Your task to perform on an android device: delete browsing data in the chrome app Image 0: 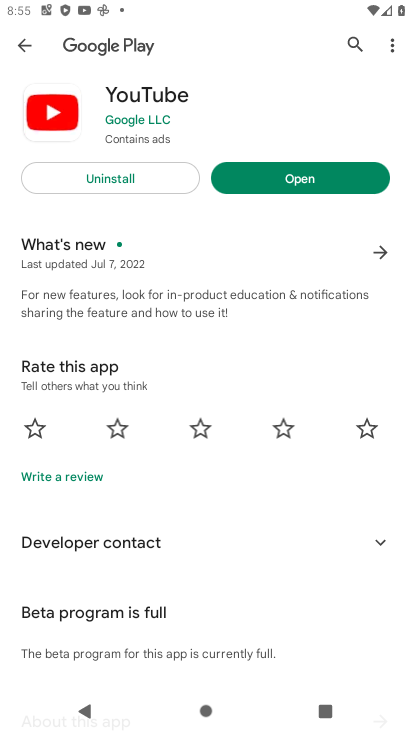
Step 0: press home button
Your task to perform on an android device: delete browsing data in the chrome app Image 1: 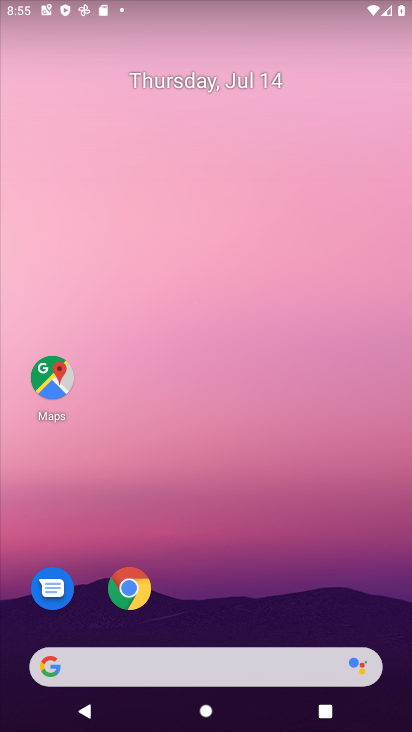
Step 1: click (132, 589)
Your task to perform on an android device: delete browsing data in the chrome app Image 2: 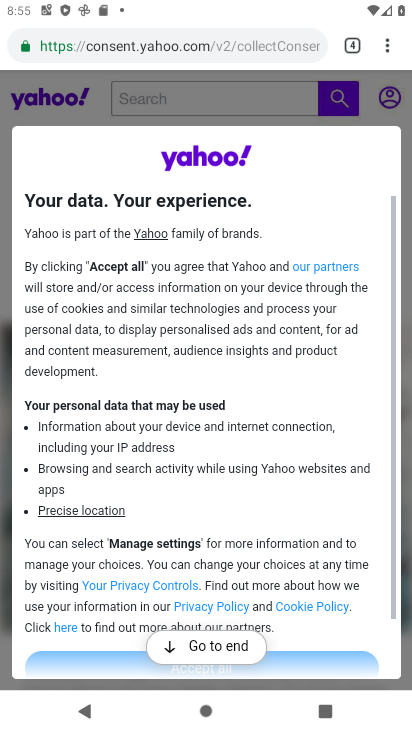
Step 2: click (383, 48)
Your task to perform on an android device: delete browsing data in the chrome app Image 3: 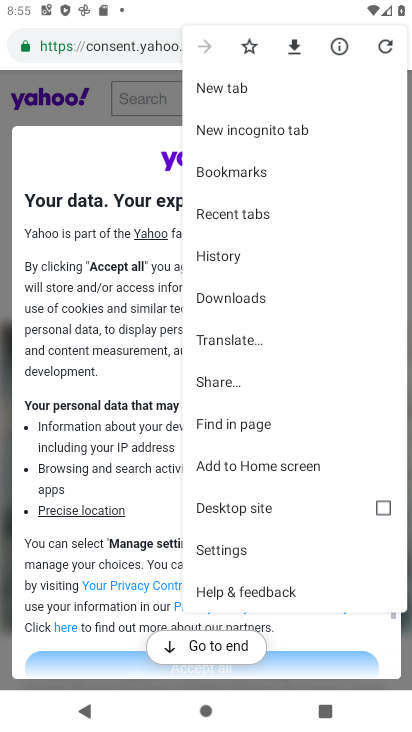
Step 3: click (234, 552)
Your task to perform on an android device: delete browsing data in the chrome app Image 4: 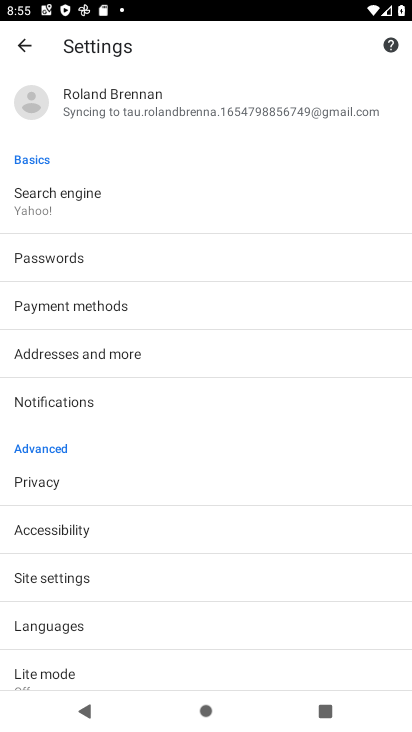
Step 4: click (72, 482)
Your task to perform on an android device: delete browsing data in the chrome app Image 5: 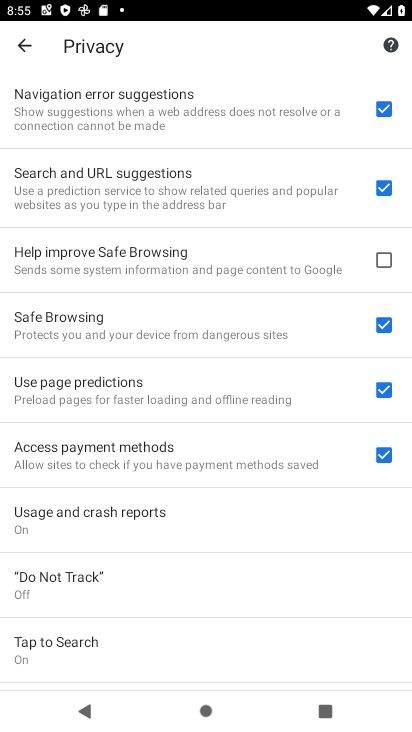
Step 5: drag from (254, 605) to (240, 95)
Your task to perform on an android device: delete browsing data in the chrome app Image 6: 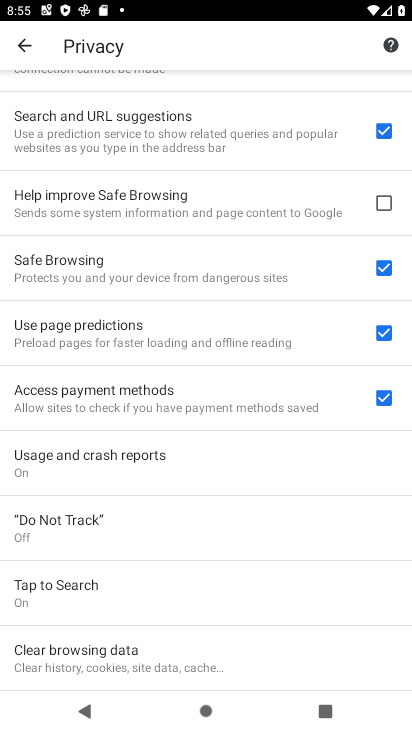
Step 6: click (80, 658)
Your task to perform on an android device: delete browsing data in the chrome app Image 7: 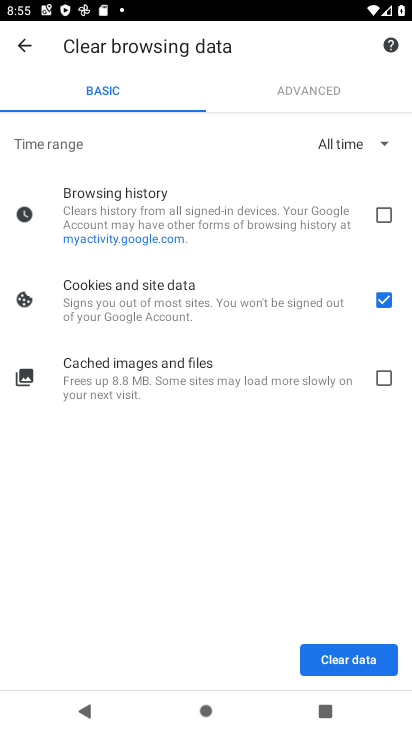
Step 7: click (385, 205)
Your task to perform on an android device: delete browsing data in the chrome app Image 8: 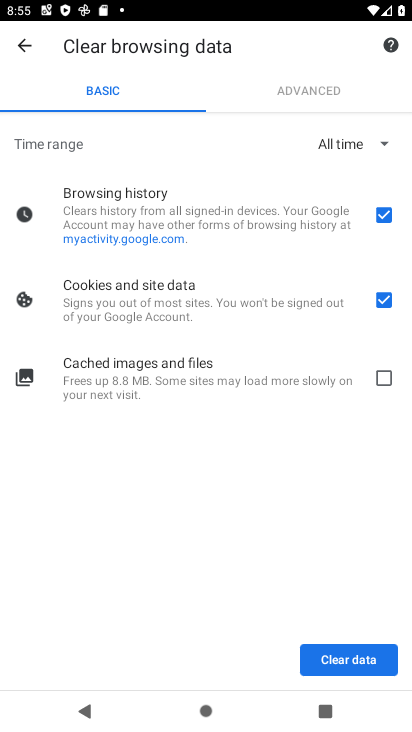
Step 8: click (388, 380)
Your task to perform on an android device: delete browsing data in the chrome app Image 9: 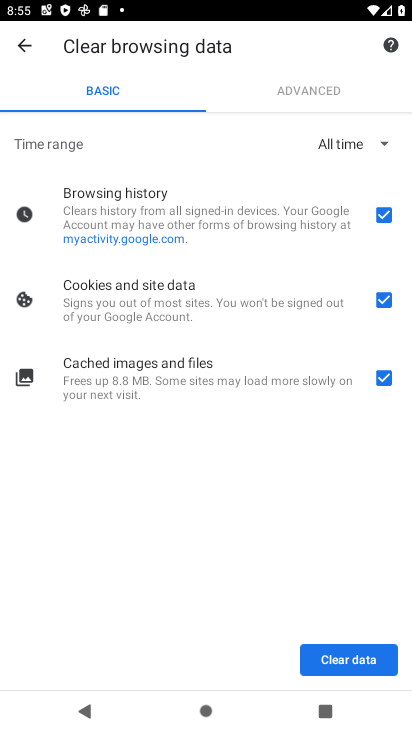
Step 9: click (345, 661)
Your task to perform on an android device: delete browsing data in the chrome app Image 10: 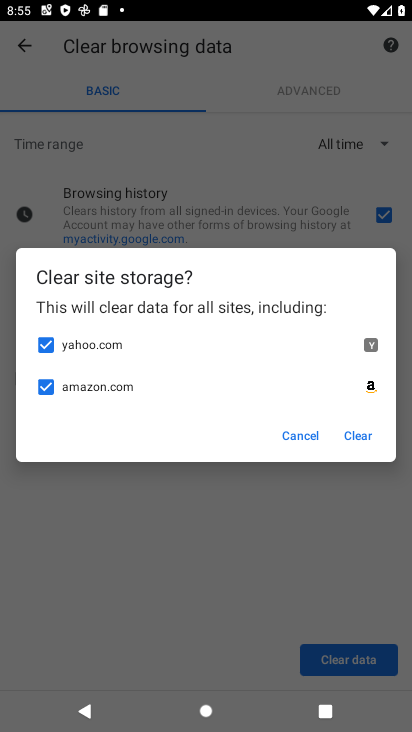
Step 10: click (355, 434)
Your task to perform on an android device: delete browsing data in the chrome app Image 11: 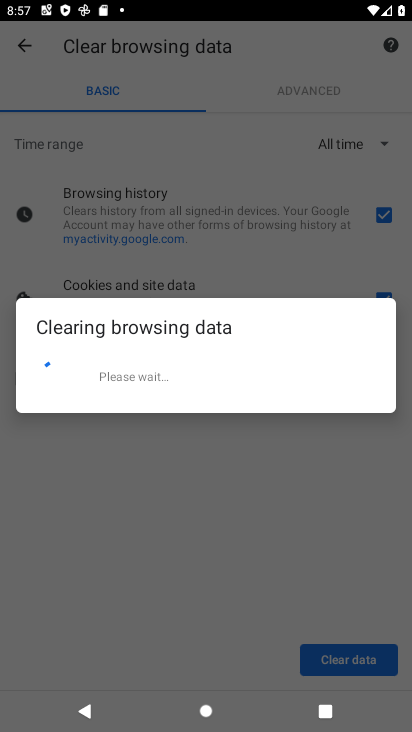
Step 11: task complete